Your task to perform on an android device: Open Yahoo.com Image 0: 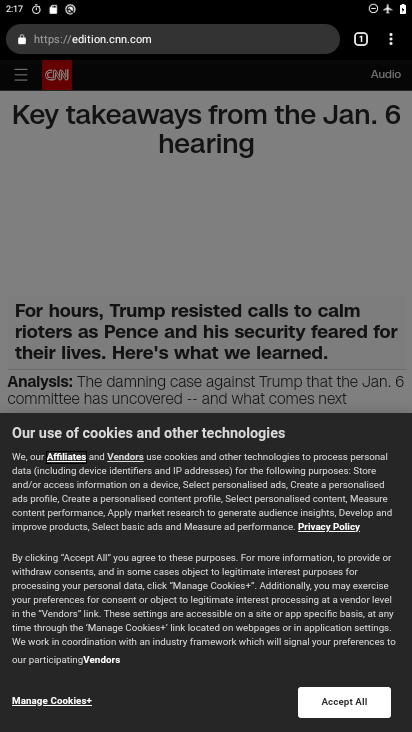
Step 0: click (351, 40)
Your task to perform on an android device: Open Yahoo.com Image 1: 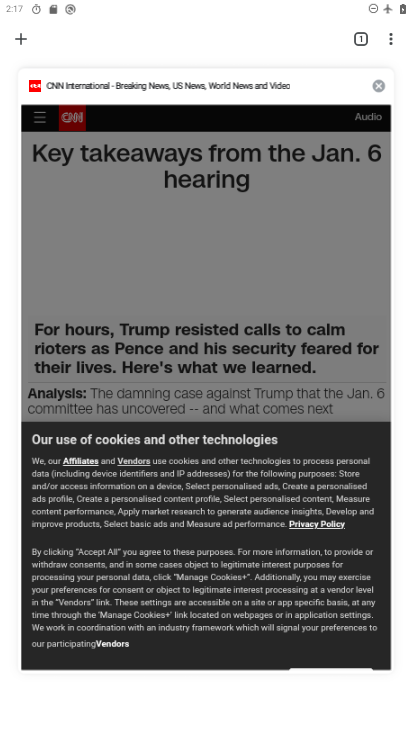
Step 1: click (18, 32)
Your task to perform on an android device: Open Yahoo.com Image 2: 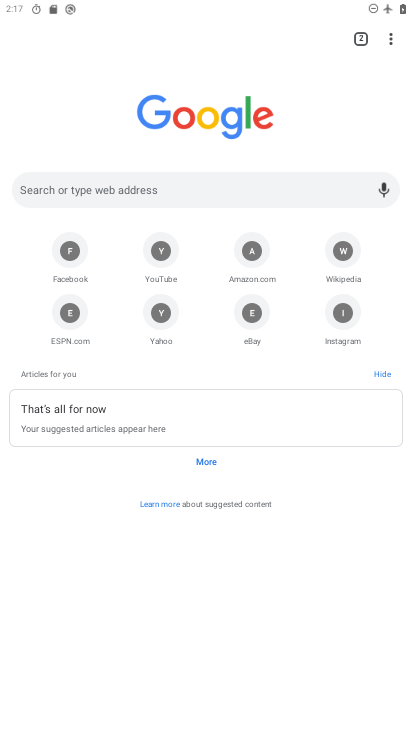
Step 2: click (156, 314)
Your task to perform on an android device: Open Yahoo.com Image 3: 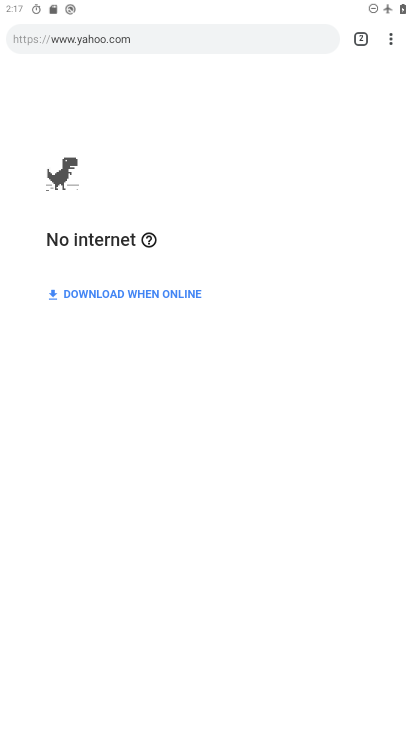
Step 3: task complete